Your task to perform on an android device: turn off notifications in google photos Image 0: 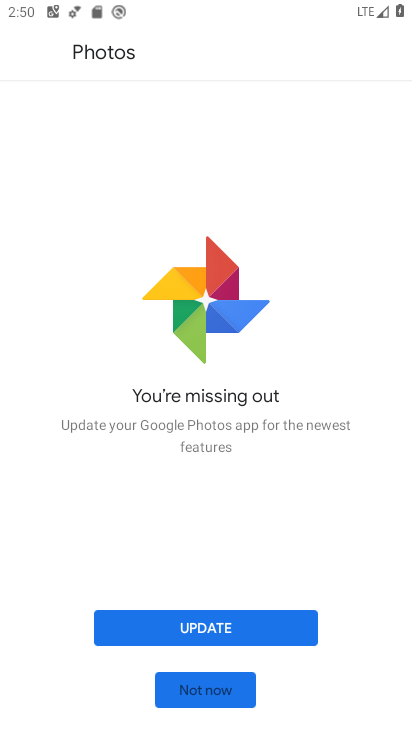
Step 0: press home button
Your task to perform on an android device: turn off notifications in google photos Image 1: 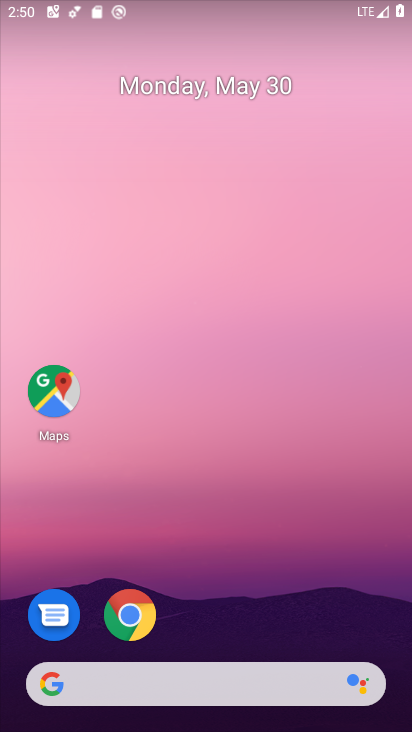
Step 1: drag from (230, 606) to (309, 24)
Your task to perform on an android device: turn off notifications in google photos Image 2: 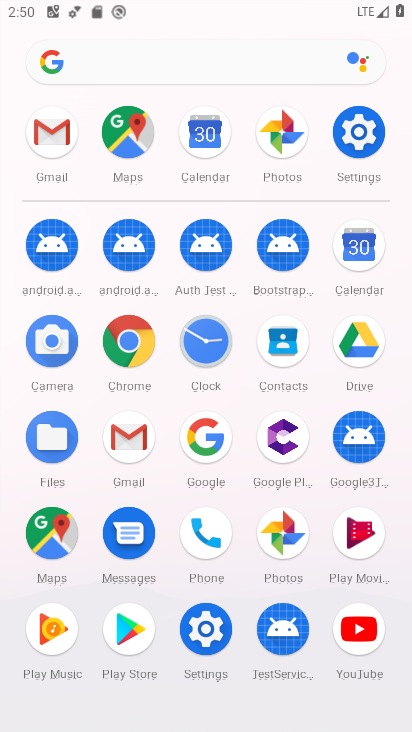
Step 2: click (283, 131)
Your task to perform on an android device: turn off notifications in google photos Image 3: 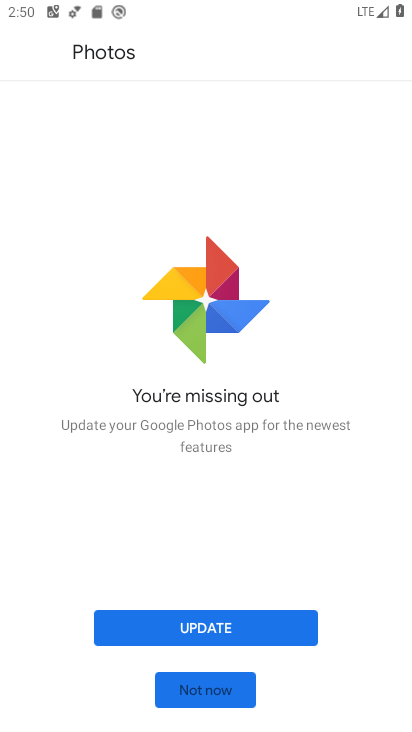
Step 3: click (212, 686)
Your task to perform on an android device: turn off notifications in google photos Image 4: 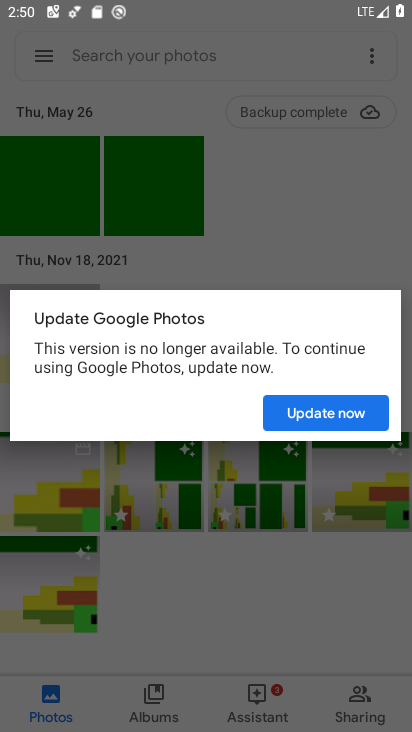
Step 4: click (290, 404)
Your task to perform on an android device: turn off notifications in google photos Image 5: 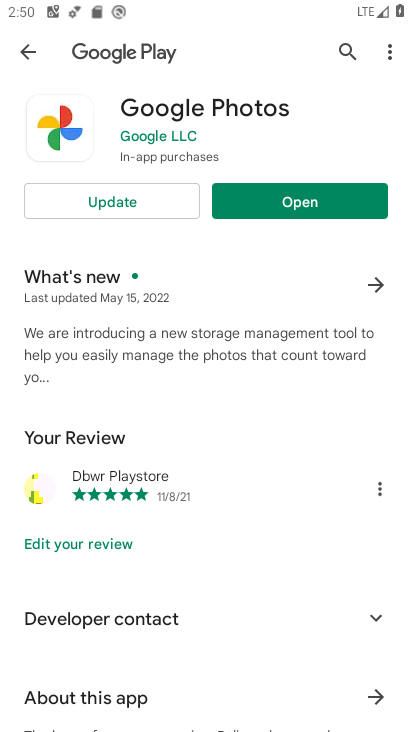
Step 5: click (272, 202)
Your task to perform on an android device: turn off notifications in google photos Image 6: 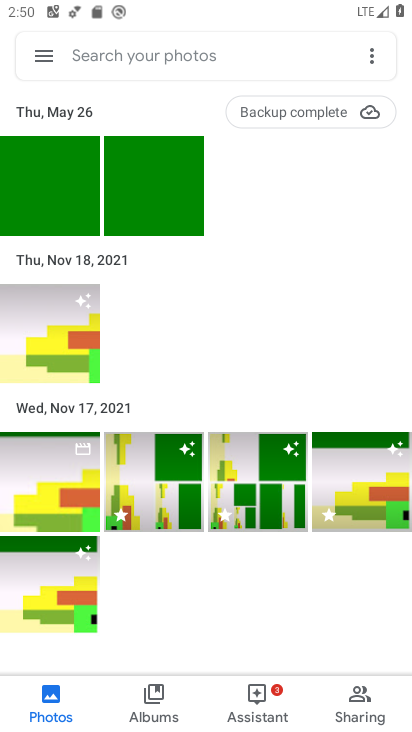
Step 6: drag from (272, 348) to (283, 144)
Your task to perform on an android device: turn off notifications in google photos Image 7: 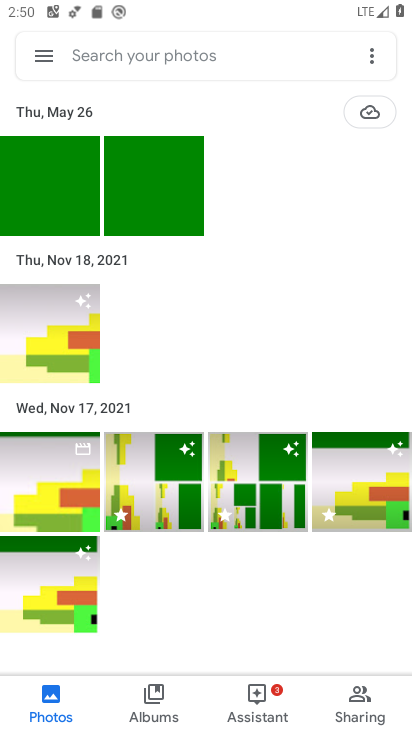
Step 7: click (44, 56)
Your task to perform on an android device: turn off notifications in google photos Image 8: 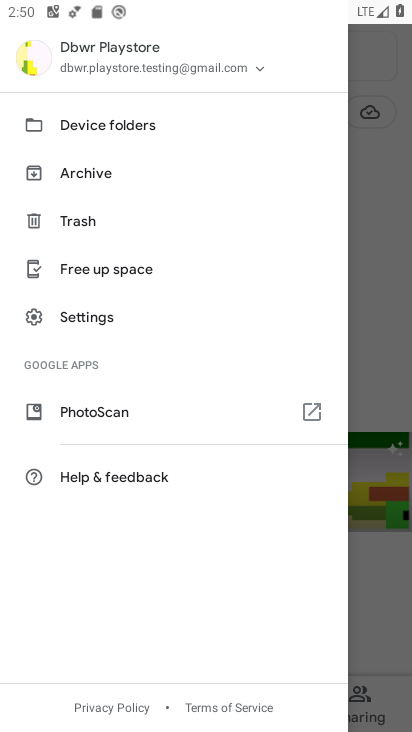
Step 8: click (83, 312)
Your task to perform on an android device: turn off notifications in google photos Image 9: 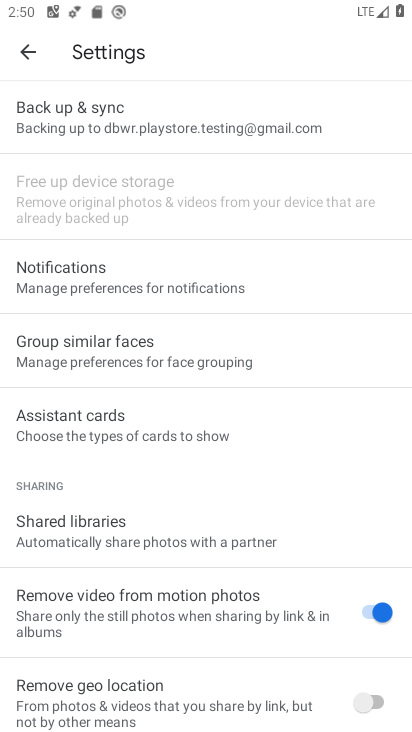
Step 9: click (116, 284)
Your task to perform on an android device: turn off notifications in google photos Image 10: 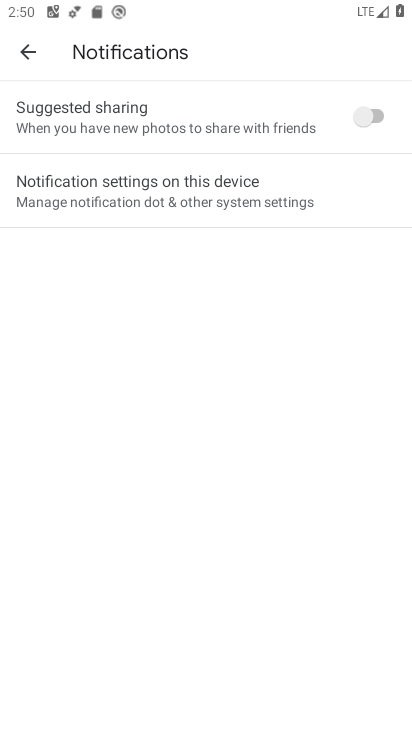
Step 10: click (176, 195)
Your task to perform on an android device: turn off notifications in google photos Image 11: 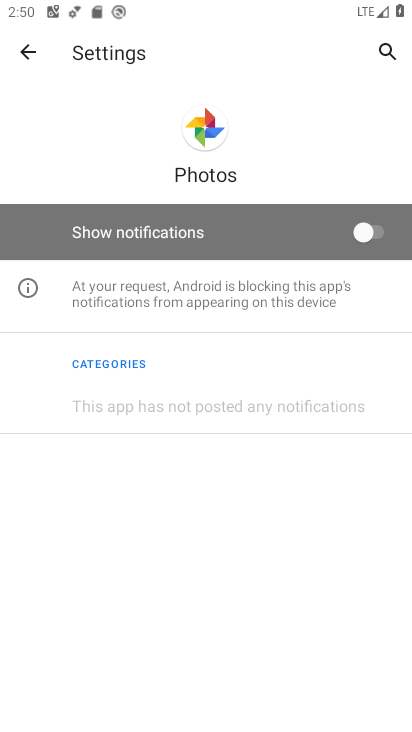
Step 11: task complete